Your task to perform on an android device: visit the assistant section in the google photos Image 0: 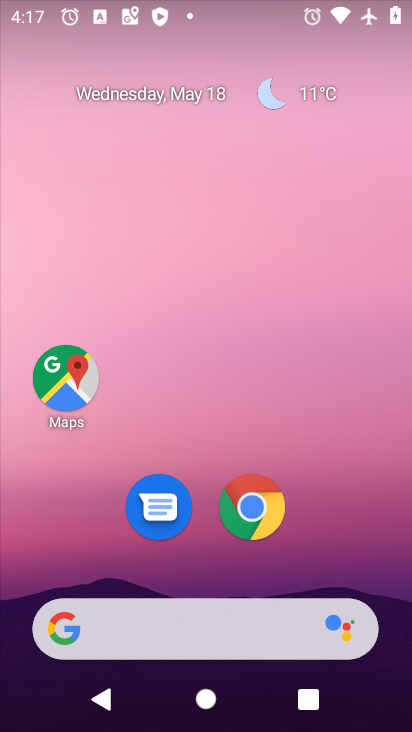
Step 0: drag from (390, 612) to (293, 124)
Your task to perform on an android device: visit the assistant section in the google photos Image 1: 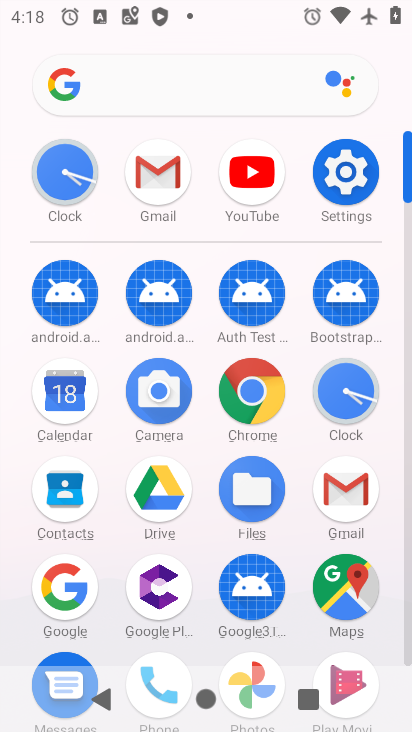
Step 1: click (407, 648)
Your task to perform on an android device: visit the assistant section in the google photos Image 2: 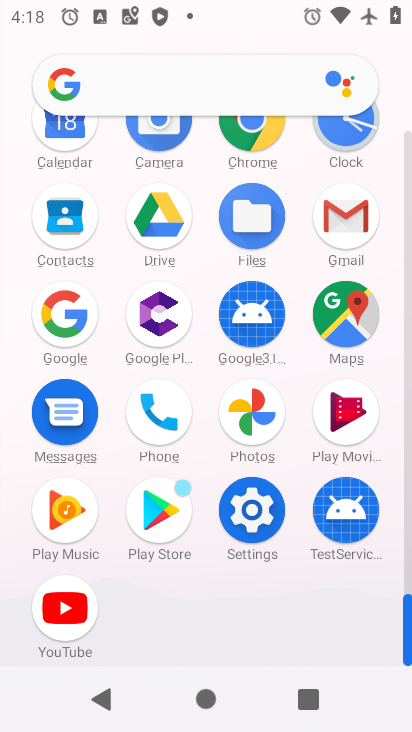
Step 2: click (247, 407)
Your task to perform on an android device: visit the assistant section in the google photos Image 3: 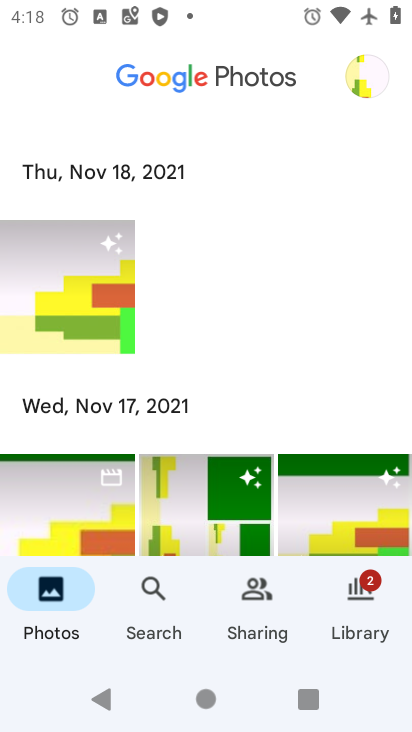
Step 3: click (355, 594)
Your task to perform on an android device: visit the assistant section in the google photos Image 4: 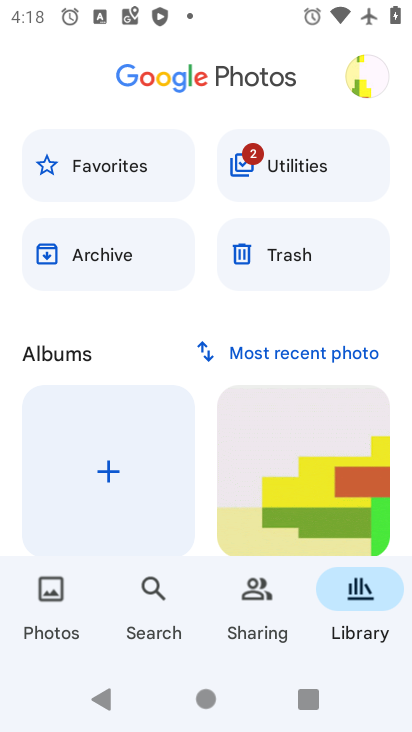
Step 4: task complete